Your task to perform on an android device: set default search engine in the chrome app Image 0: 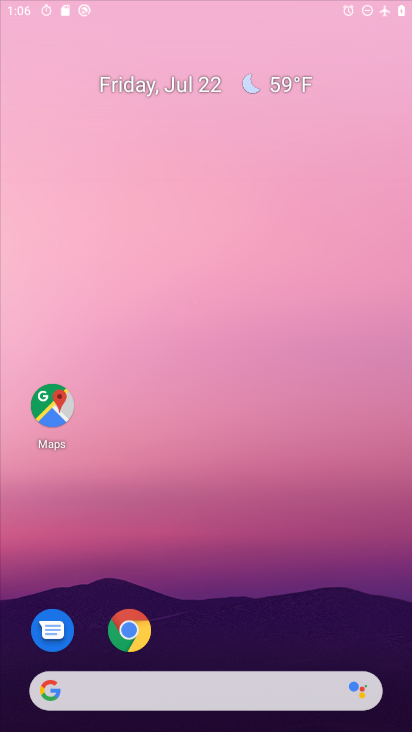
Step 0: press home button
Your task to perform on an android device: set default search engine in the chrome app Image 1: 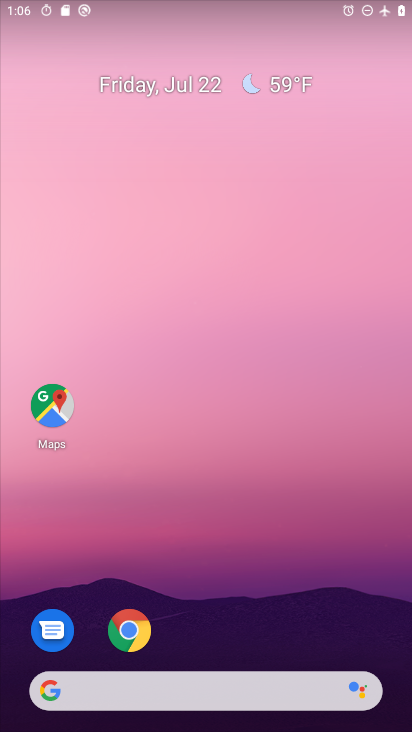
Step 1: drag from (219, 659) to (208, 1)
Your task to perform on an android device: set default search engine in the chrome app Image 2: 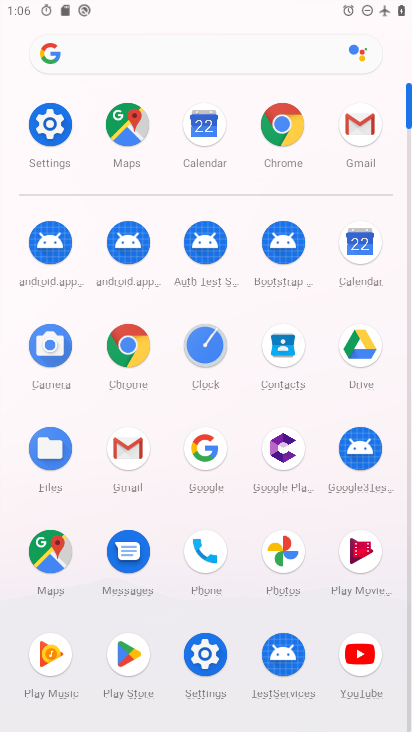
Step 2: click (287, 124)
Your task to perform on an android device: set default search engine in the chrome app Image 3: 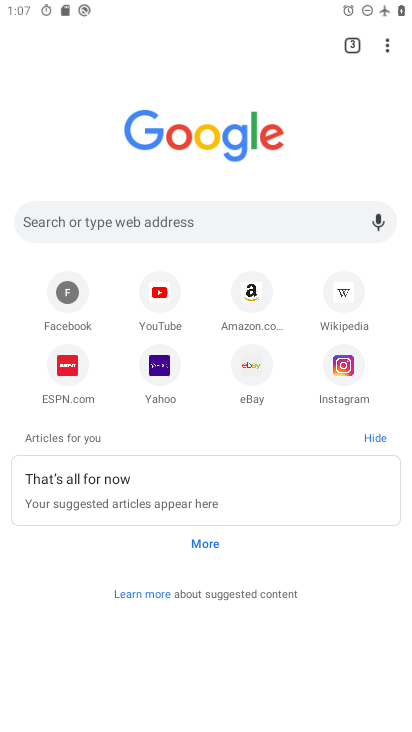
Step 3: drag from (393, 41) to (205, 429)
Your task to perform on an android device: set default search engine in the chrome app Image 4: 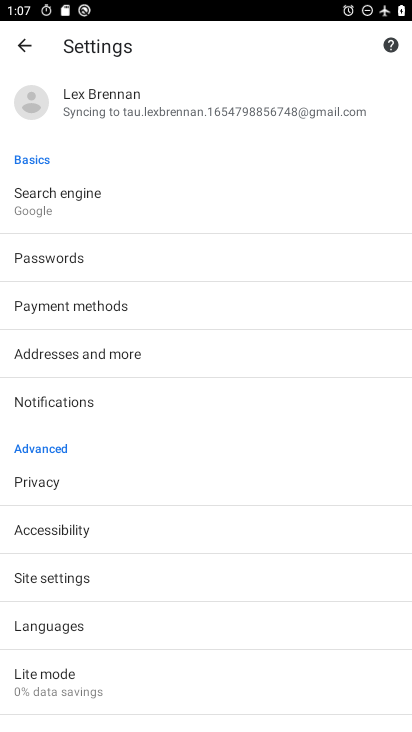
Step 4: click (39, 206)
Your task to perform on an android device: set default search engine in the chrome app Image 5: 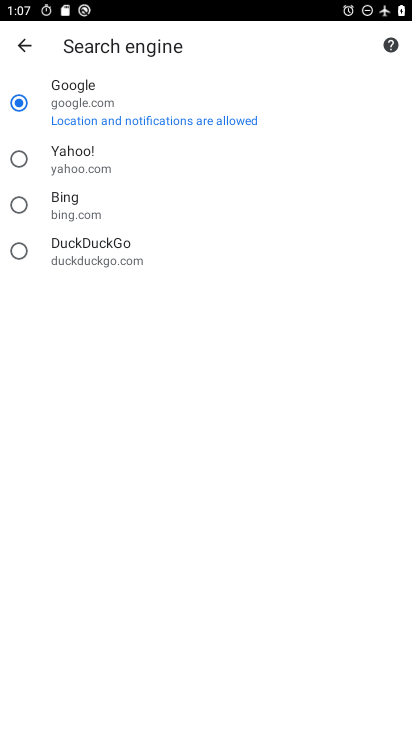
Step 5: click (20, 160)
Your task to perform on an android device: set default search engine in the chrome app Image 6: 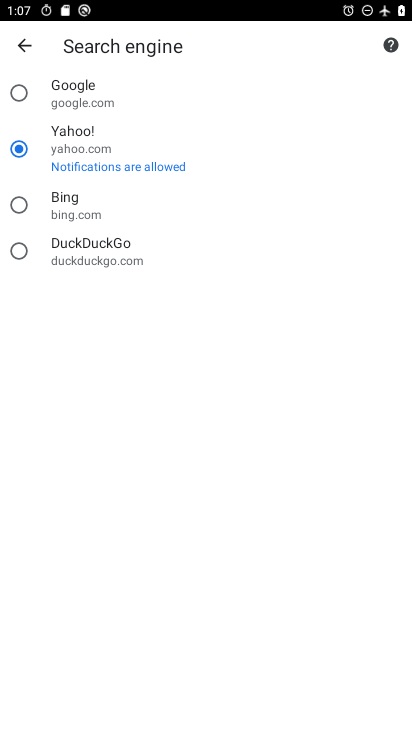
Step 6: task complete